Your task to perform on an android device: Open Google Maps Image 0: 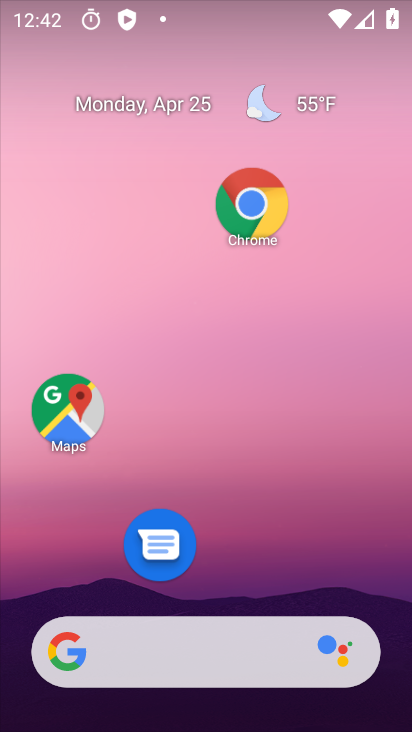
Step 0: drag from (306, 412) to (327, 272)
Your task to perform on an android device: Open Google Maps Image 1: 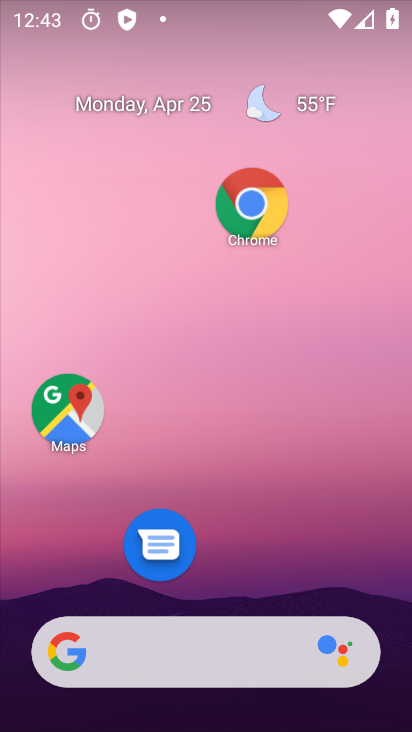
Step 1: drag from (195, 697) to (221, 276)
Your task to perform on an android device: Open Google Maps Image 2: 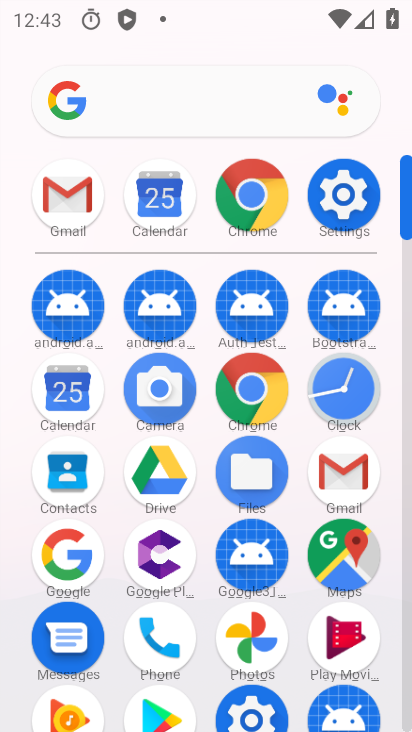
Step 2: click (348, 541)
Your task to perform on an android device: Open Google Maps Image 3: 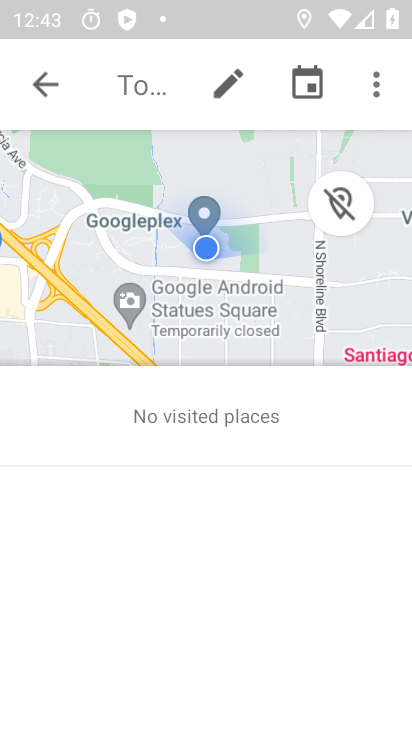
Step 3: task complete